Your task to perform on an android device: Is it going to rain this weekend? Image 0: 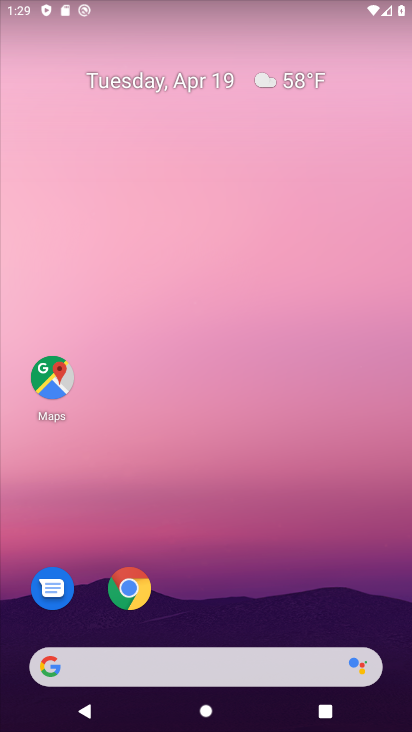
Step 0: click (293, 80)
Your task to perform on an android device: Is it going to rain this weekend? Image 1: 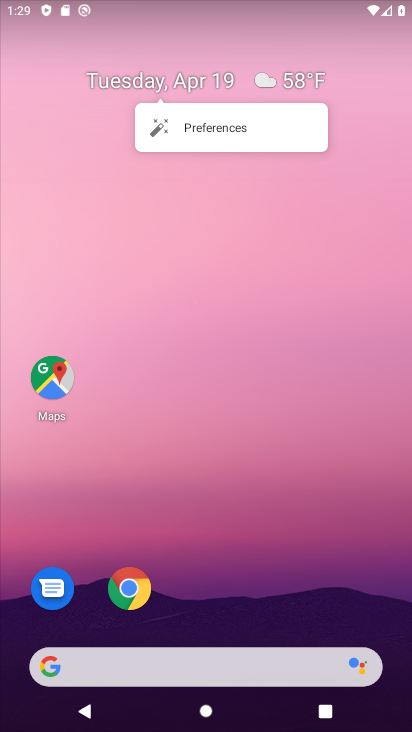
Step 1: click (293, 80)
Your task to perform on an android device: Is it going to rain this weekend? Image 2: 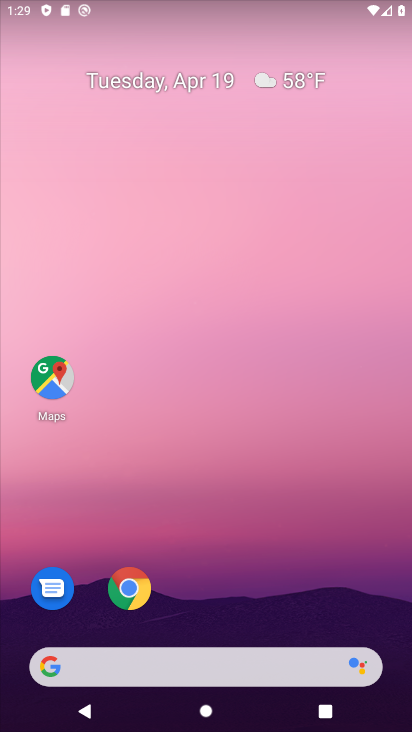
Step 2: click (293, 80)
Your task to perform on an android device: Is it going to rain this weekend? Image 3: 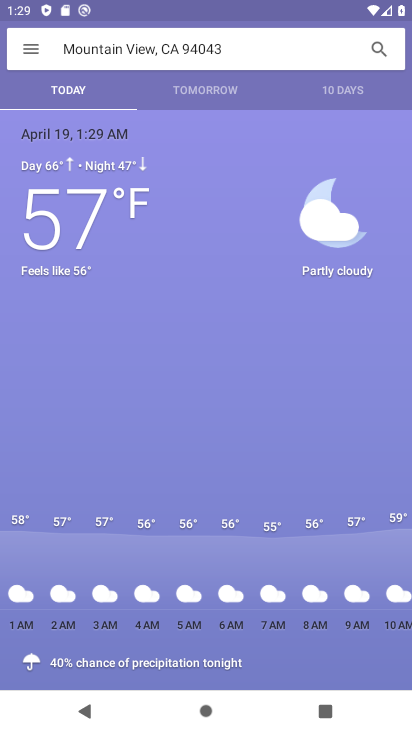
Step 3: click (337, 90)
Your task to perform on an android device: Is it going to rain this weekend? Image 4: 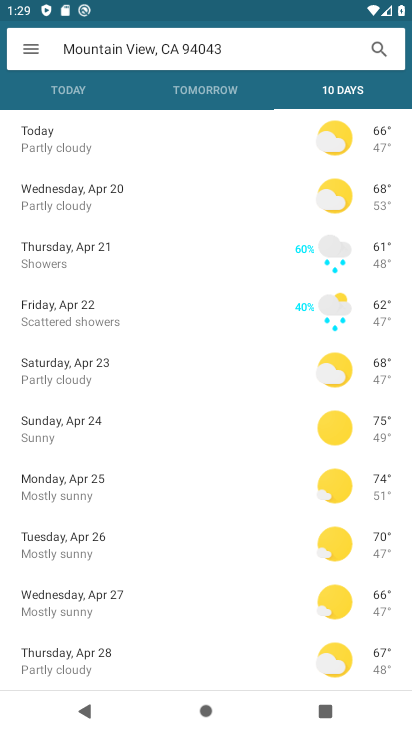
Step 4: click (89, 369)
Your task to perform on an android device: Is it going to rain this weekend? Image 5: 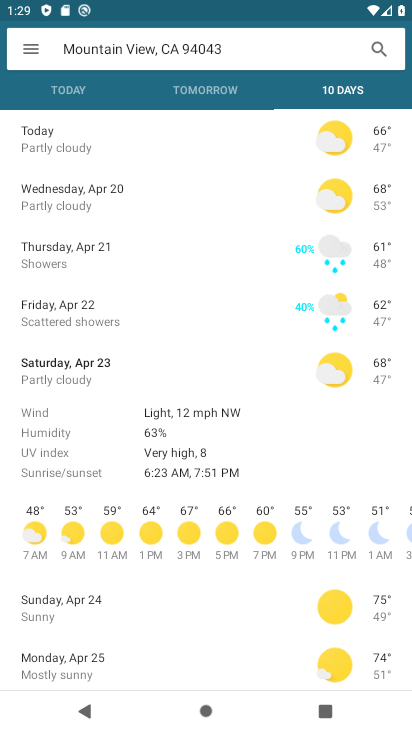
Step 5: task complete